Your task to perform on an android device: turn notification dots off Image 0: 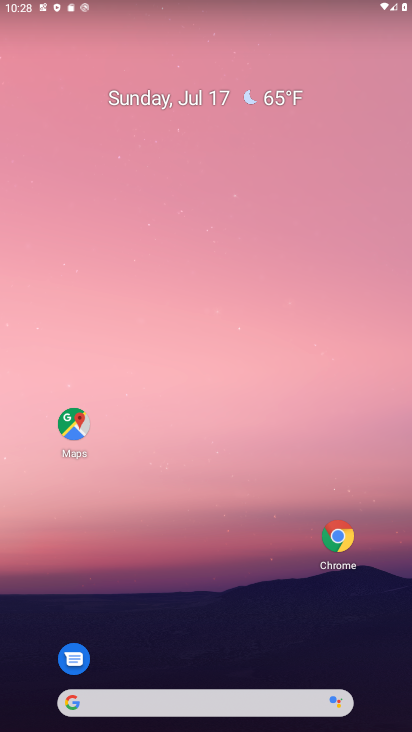
Step 0: drag from (175, 698) to (170, 191)
Your task to perform on an android device: turn notification dots off Image 1: 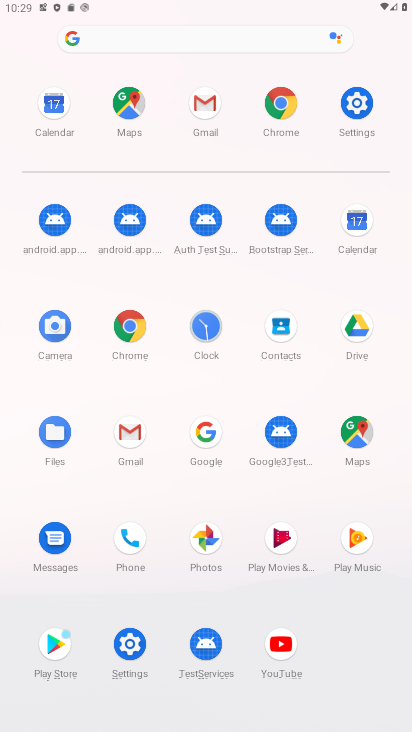
Step 1: click (352, 115)
Your task to perform on an android device: turn notification dots off Image 2: 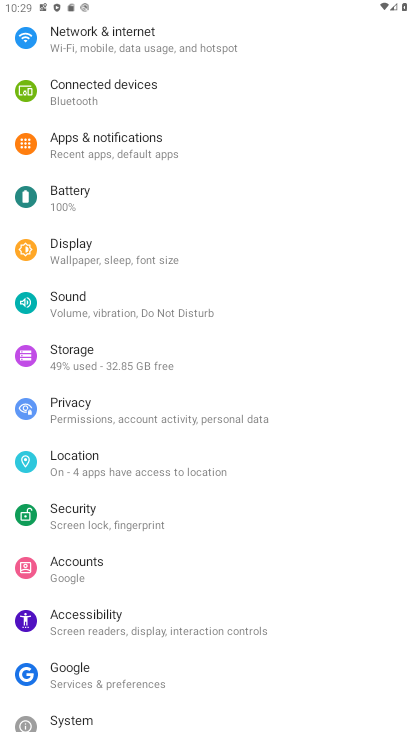
Step 2: click (132, 138)
Your task to perform on an android device: turn notification dots off Image 3: 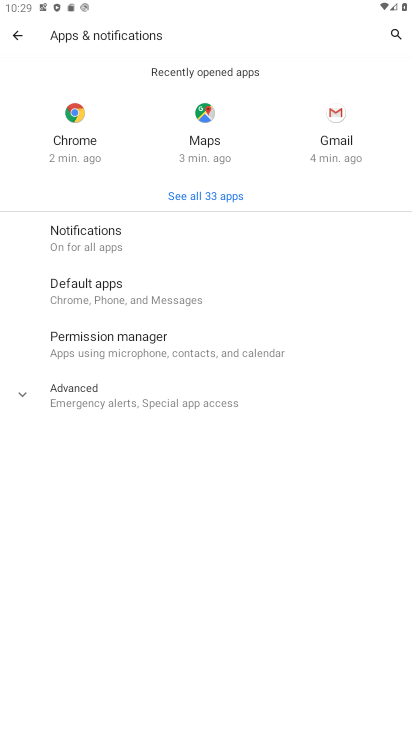
Step 3: click (62, 234)
Your task to perform on an android device: turn notification dots off Image 4: 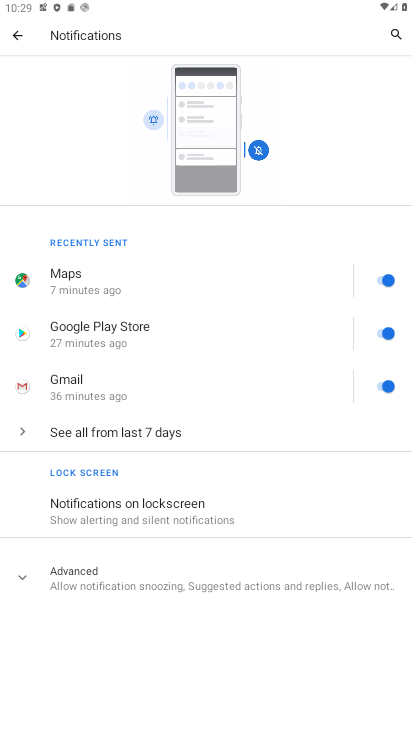
Step 4: click (113, 566)
Your task to perform on an android device: turn notification dots off Image 5: 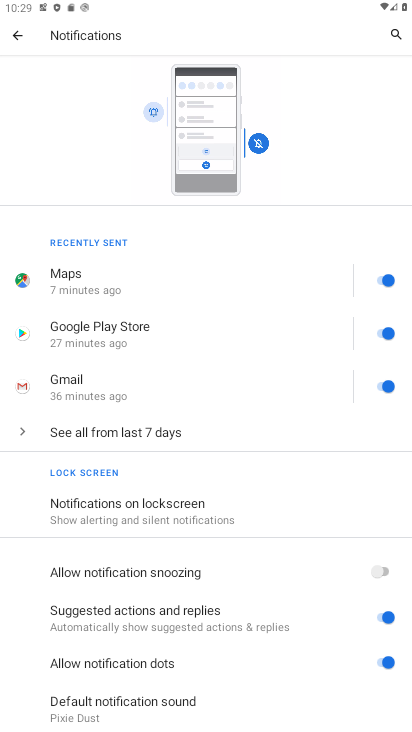
Step 5: click (380, 667)
Your task to perform on an android device: turn notification dots off Image 6: 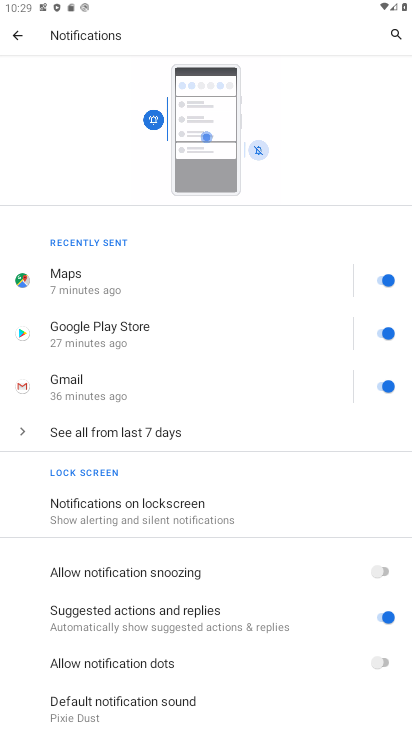
Step 6: task complete